Your task to perform on an android device: Go to network settings Image 0: 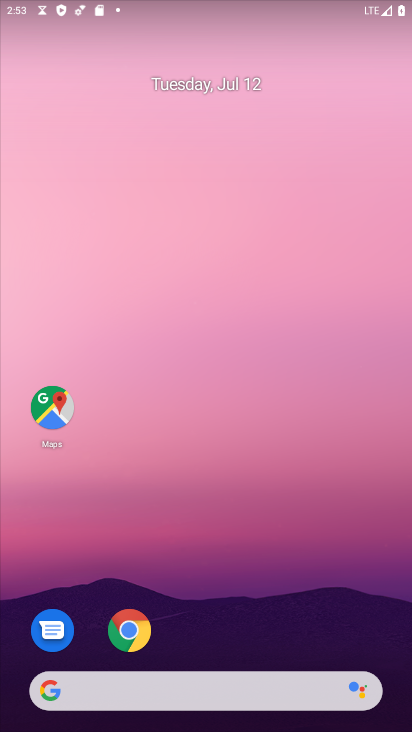
Step 0: drag from (190, 636) to (149, 175)
Your task to perform on an android device: Go to network settings Image 1: 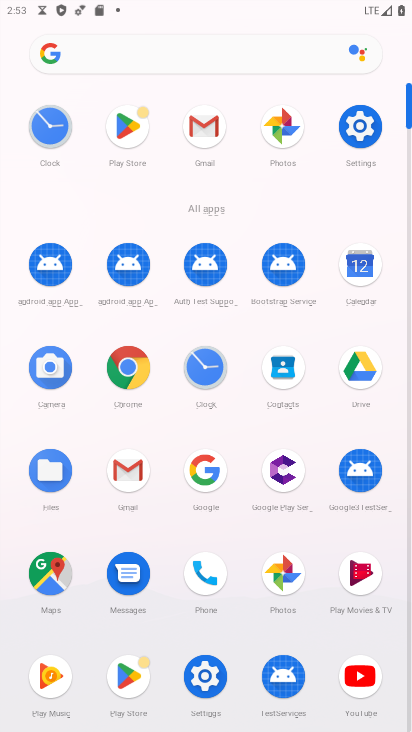
Step 1: click (222, 703)
Your task to perform on an android device: Go to network settings Image 2: 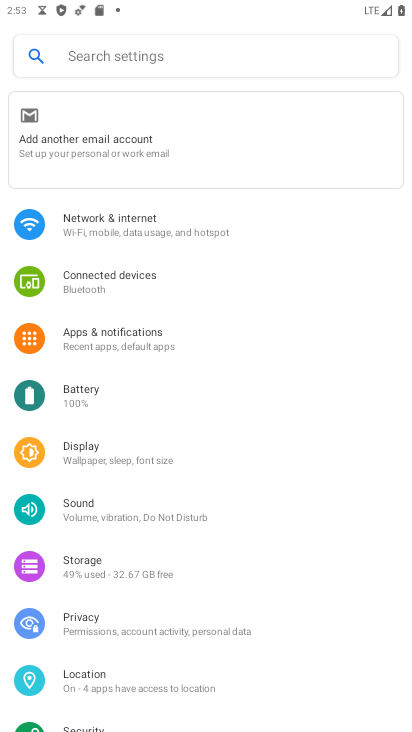
Step 2: click (161, 228)
Your task to perform on an android device: Go to network settings Image 3: 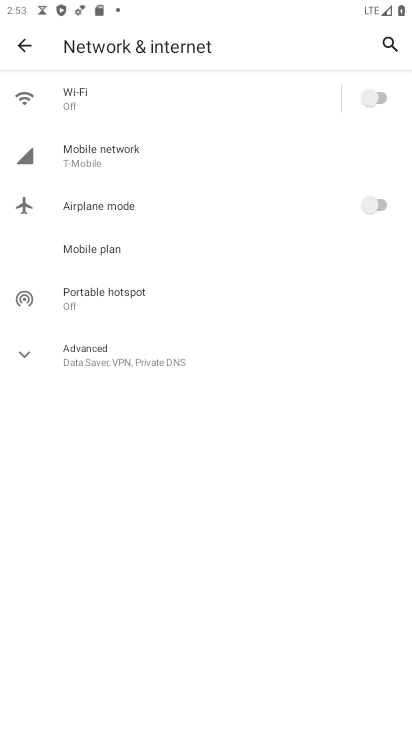
Step 3: task complete